Your task to perform on an android device: Open Google Maps and go to "Timeline" Image 0: 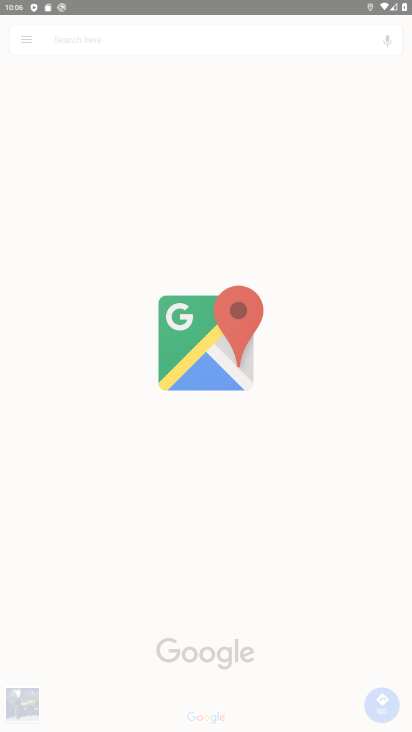
Step 0: click (137, 651)
Your task to perform on an android device: Open Google Maps and go to "Timeline" Image 1: 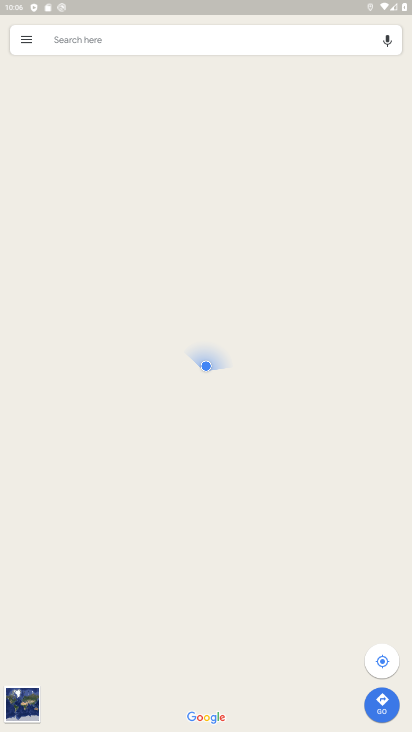
Step 1: click (24, 42)
Your task to perform on an android device: Open Google Maps and go to "Timeline" Image 2: 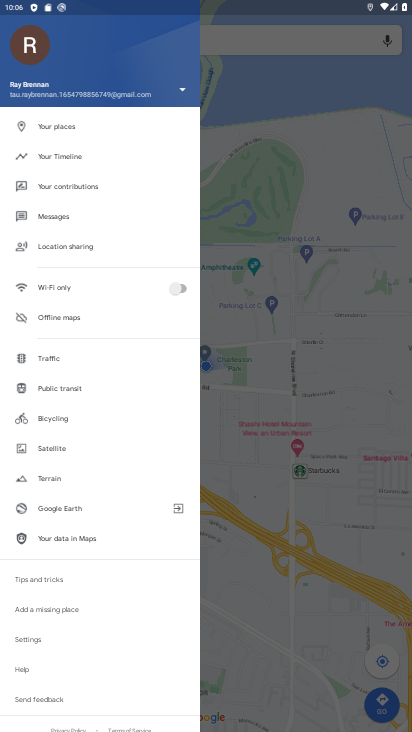
Step 2: click (90, 151)
Your task to perform on an android device: Open Google Maps and go to "Timeline" Image 3: 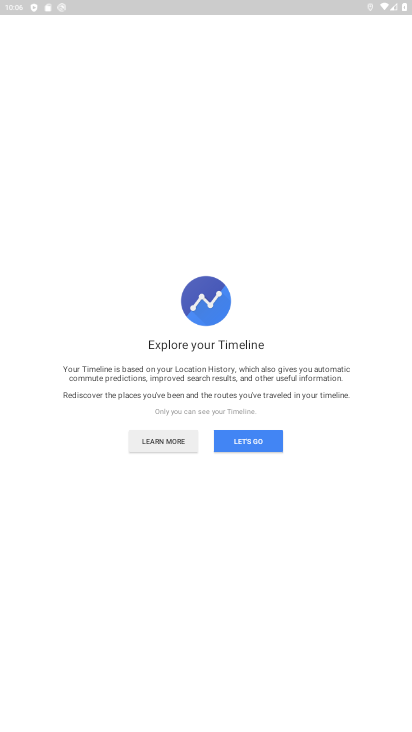
Step 3: click (255, 439)
Your task to perform on an android device: Open Google Maps and go to "Timeline" Image 4: 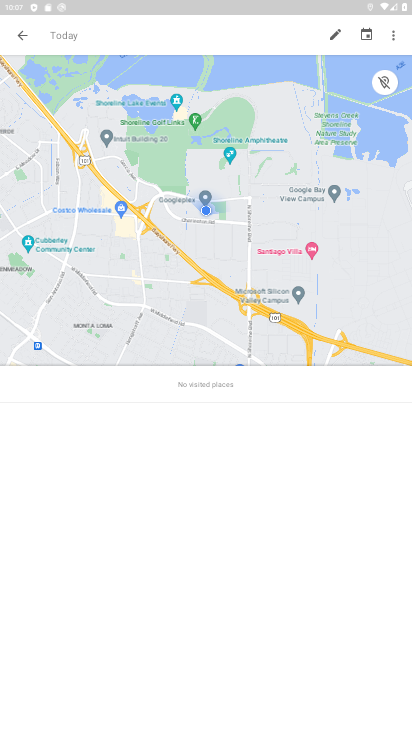
Step 4: task complete